Your task to perform on an android device: Clear the shopping cart on walmart. Add apple airpods to the cart on walmart, then select checkout. Image 0: 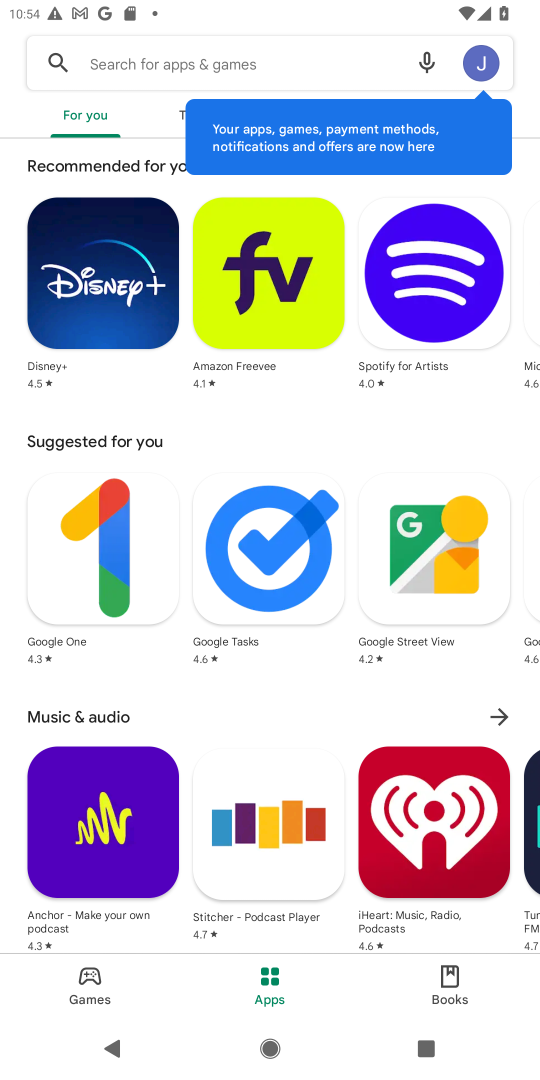
Step 0: press home button
Your task to perform on an android device: Clear the shopping cart on walmart. Add apple airpods to the cart on walmart, then select checkout. Image 1: 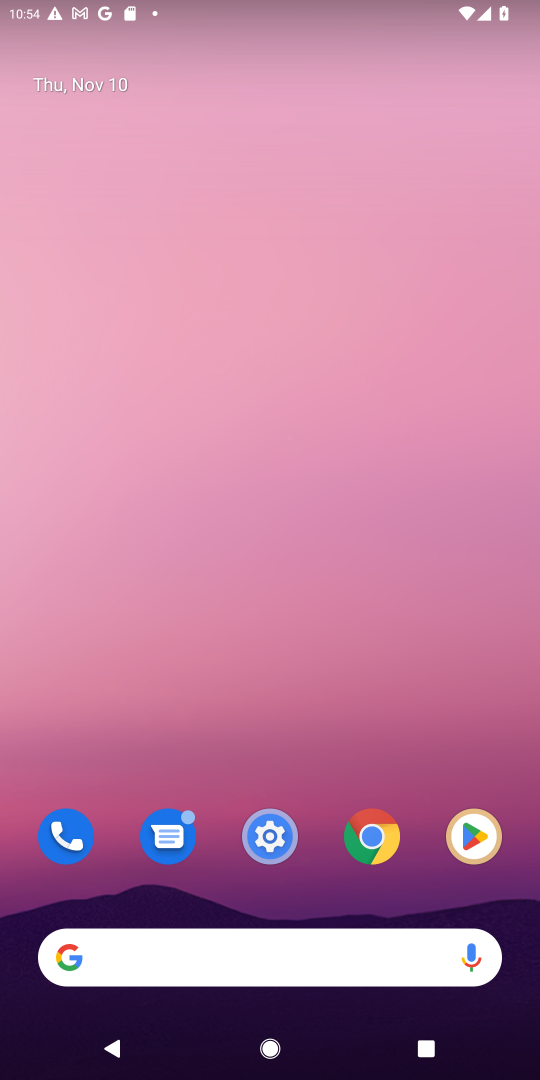
Step 1: click (220, 967)
Your task to perform on an android device: Clear the shopping cart on walmart. Add apple airpods to the cart on walmart, then select checkout. Image 2: 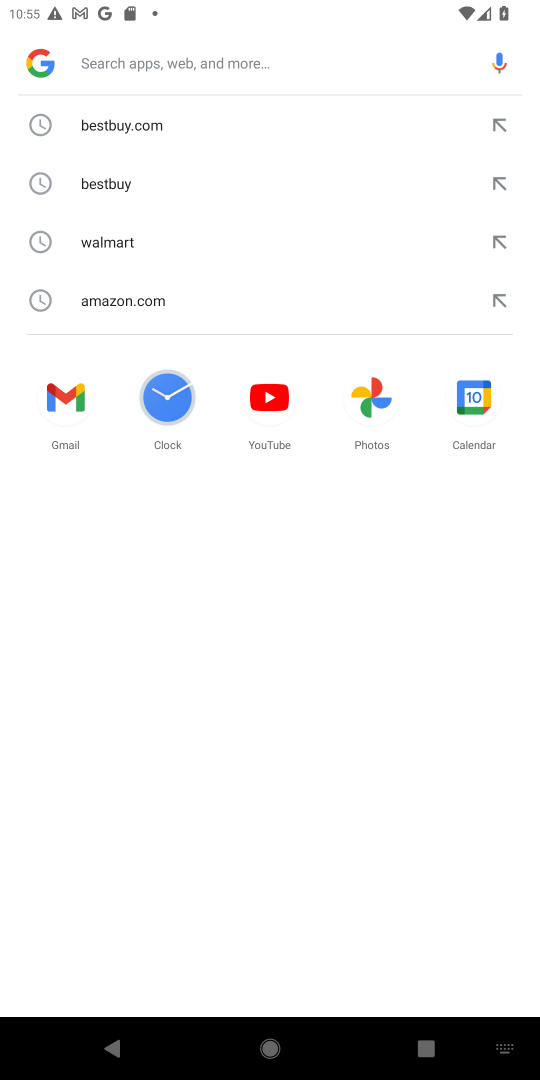
Step 2: press home button
Your task to perform on an android device: Clear the shopping cart on walmart. Add apple airpods to the cart on walmart, then select checkout. Image 3: 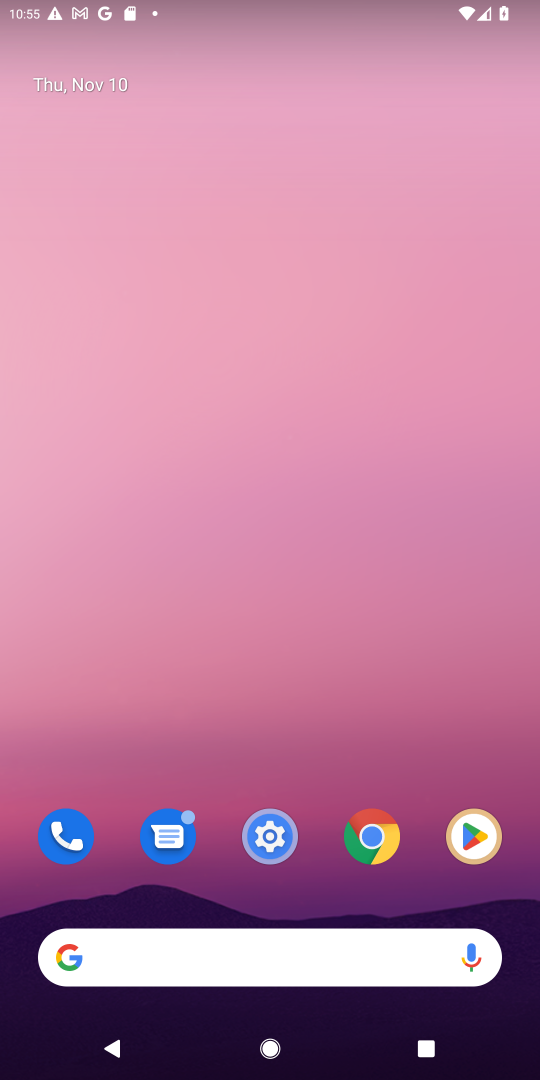
Step 3: click (320, 943)
Your task to perform on an android device: Clear the shopping cart on walmart. Add apple airpods to the cart on walmart, then select checkout. Image 4: 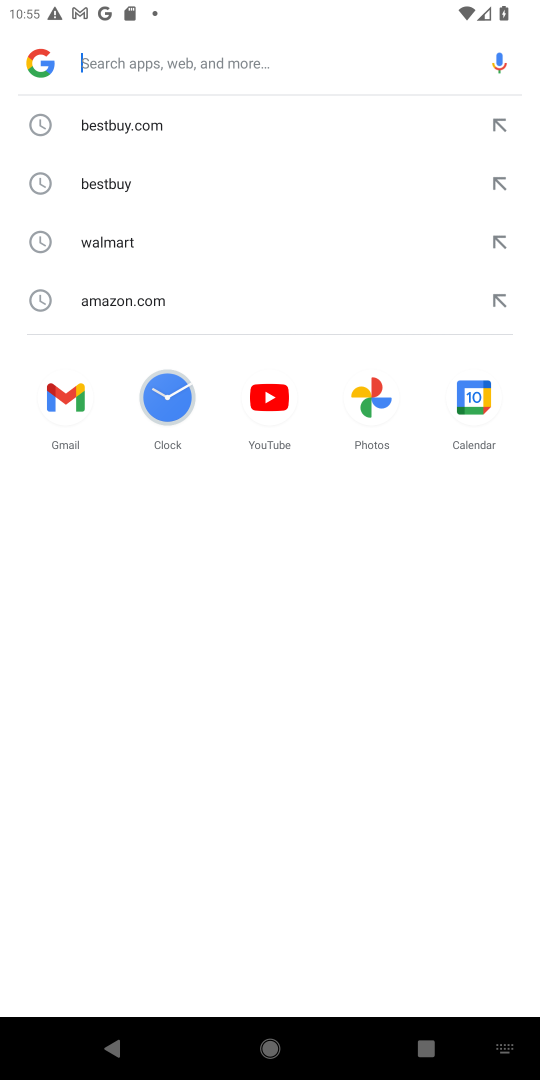
Step 4: click (127, 253)
Your task to perform on an android device: Clear the shopping cart on walmart. Add apple airpods to the cart on walmart, then select checkout. Image 5: 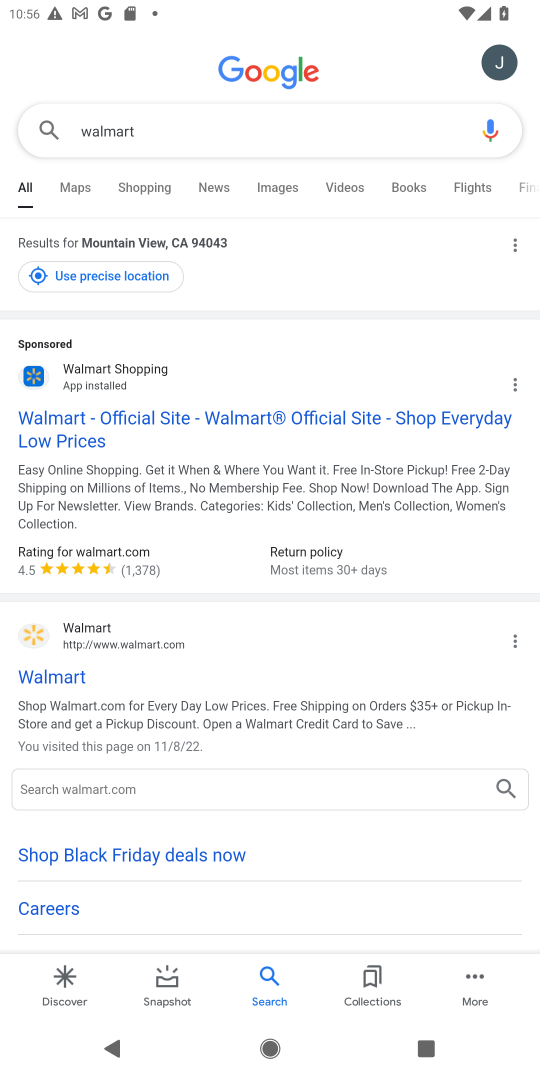
Step 5: click (83, 414)
Your task to perform on an android device: Clear the shopping cart on walmart. Add apple airpods to the cart on walmart, then select checkout. Image 6: 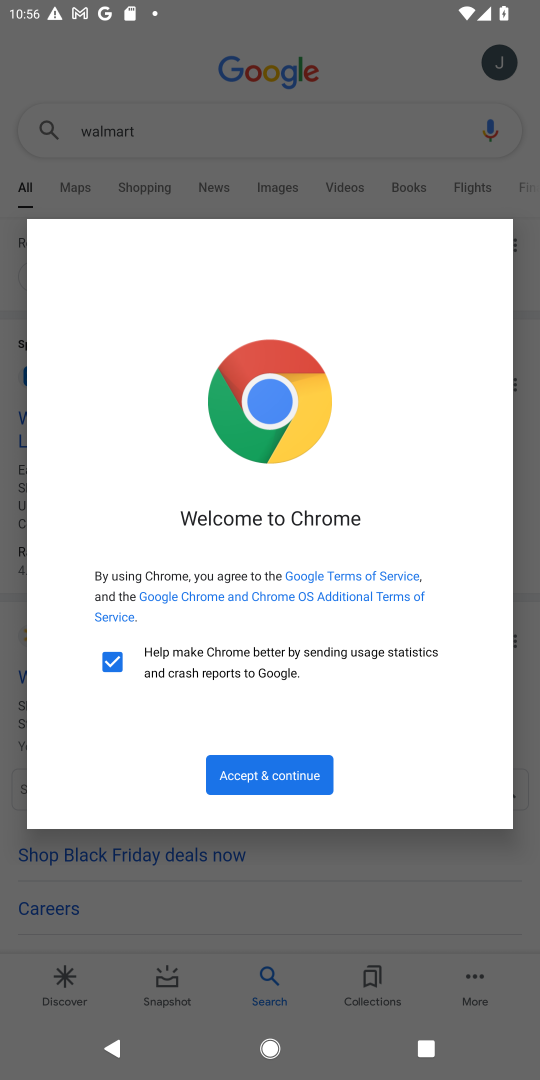
Step 6: click (260, 782)
Your task to perform on an android device: Clear the shopping cart on walmart. Add apple airpods to the cart on walmart, then select checkout. Image 7: 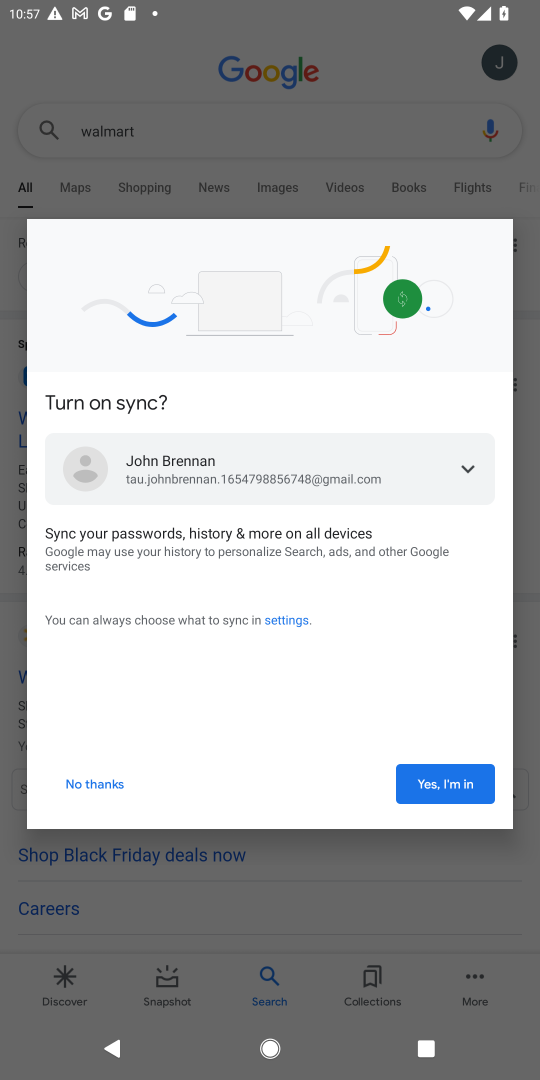
Step 7: click (452, 772)
Your task to perform on an android device: Clear the shopping cart on walmart. Add apple airpods to the cart on walmart, then select checkout. Image 8: 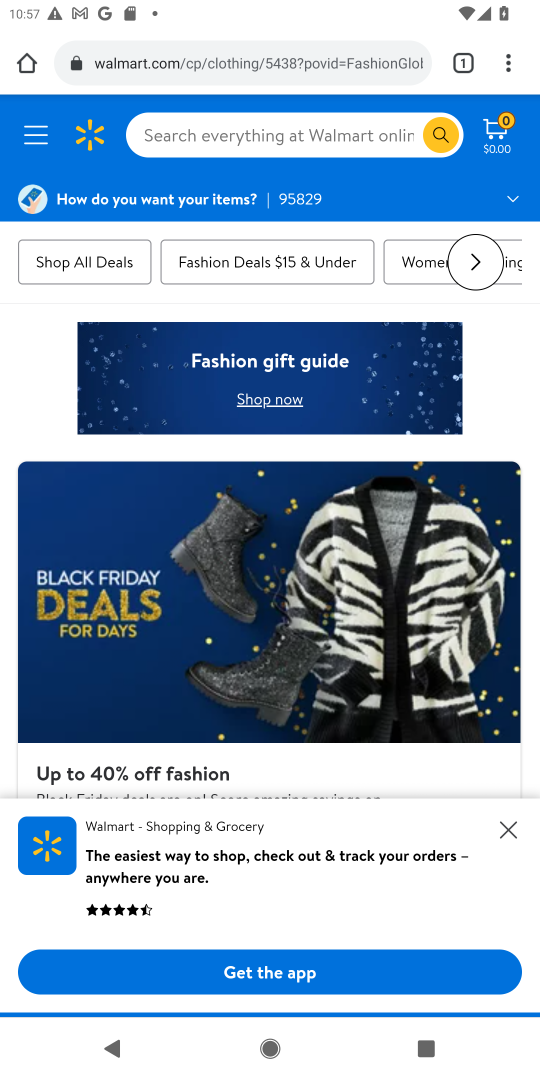
Step 8: click (223, 128)
Your task to perform on an android device: Clear the shopping cart on walmart. Add apple airpods to the cart on walmart, then select checkout. Image 9: 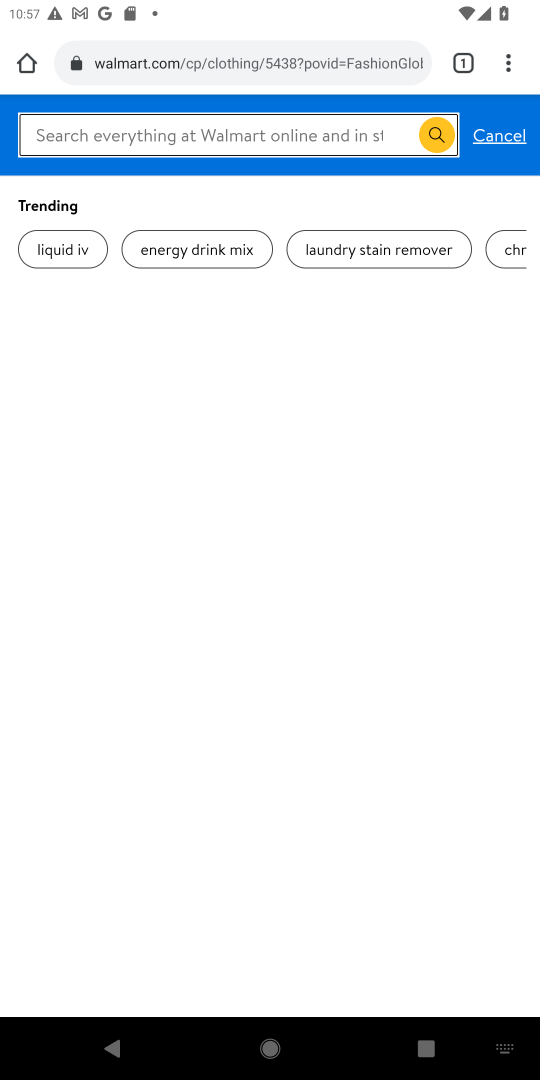
Step 9: type "apple airpods"
Your task to perform on an android device: Clear the shopping cart on walmart. Add apple airpods to the cart on walmart, then select checkout. Image 10: 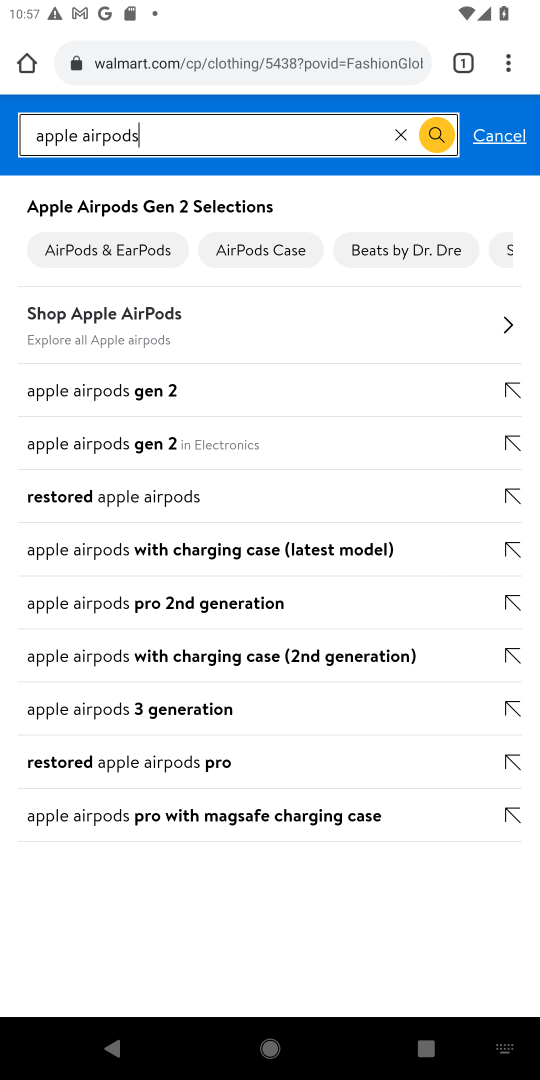
Step 10: click (119, 318)
Your task to perform on an android device: Clear the shopping cart on walmart. Add apple airpods to the cart on walmart, then select checkout. Image 11: 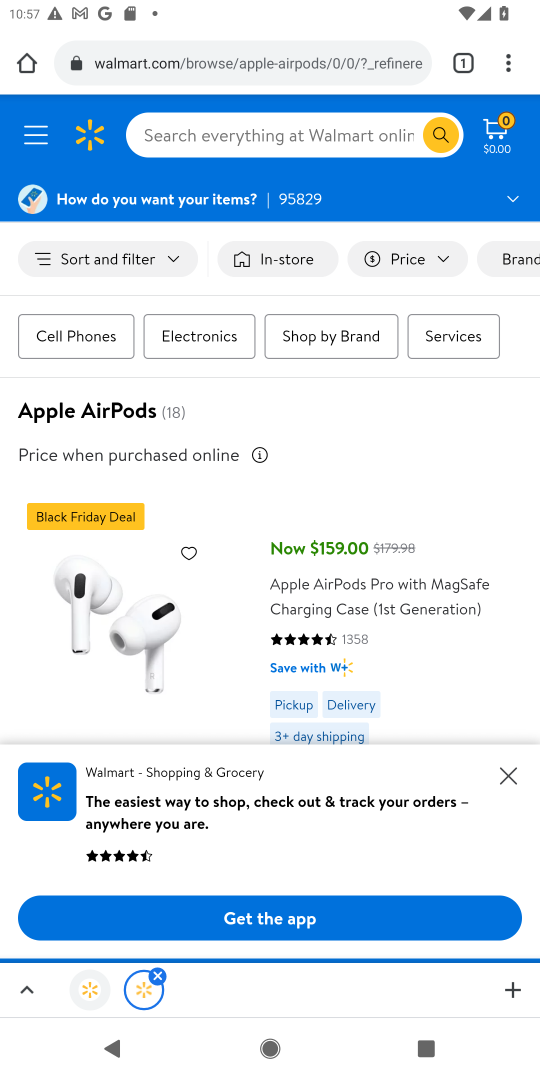
Step 11: click (512, 779)
Your task to perform on an android device: Clear the shopping cart on walmart. Add apple airpods to the cart on walmart, then select checkout. Image 12: 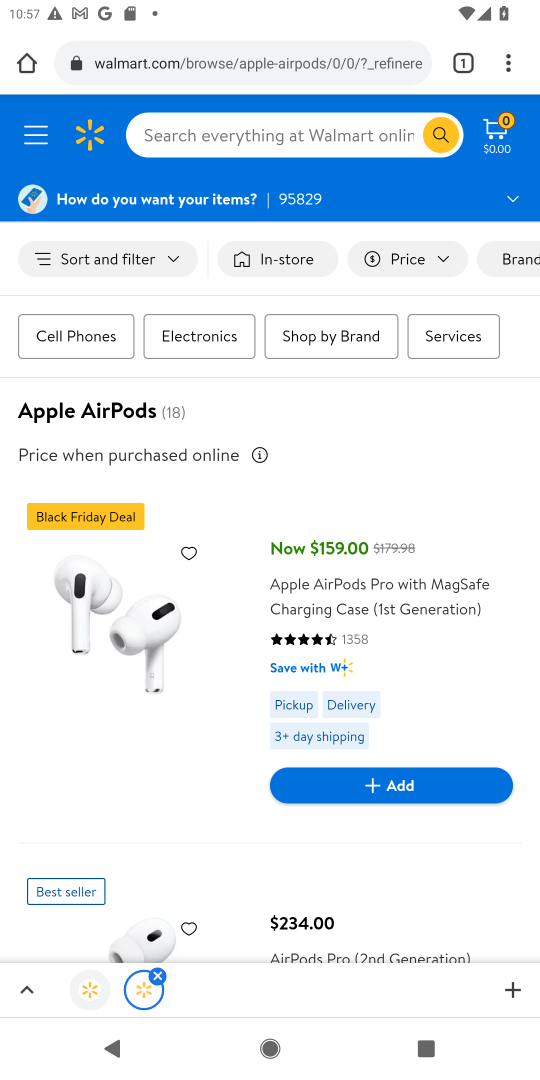
Step 12: click (377, 781)
Your task to perform on an android device: Clear the shopping cart on walmart. Add apple airpods to the cart on walmart, then select checkout. Image 13: 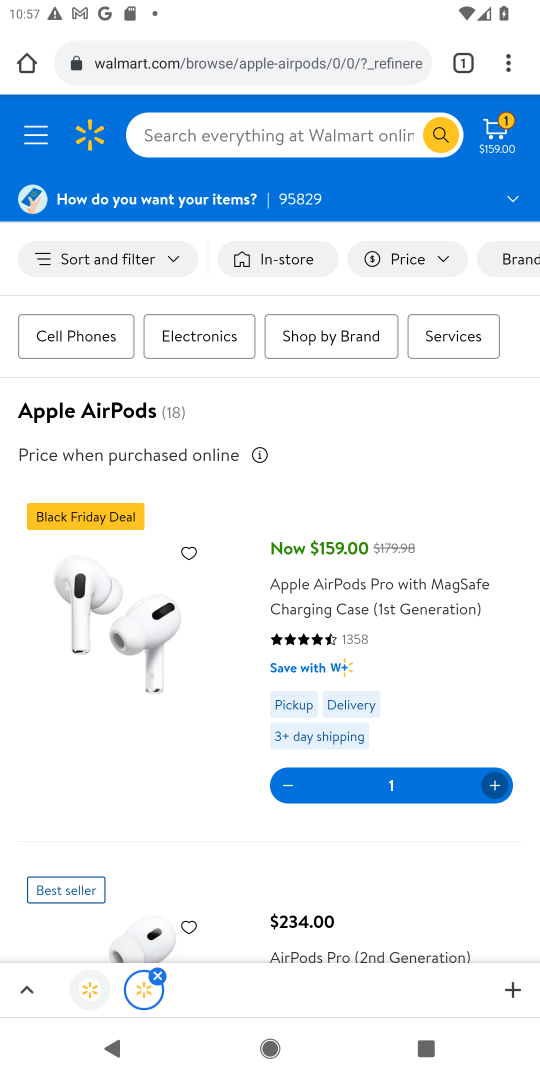
Step 13: click (502, 148)
Your task to perform on an android device: Clear the shopping cart on walmart. Add apple airpods to the cart on walmart, then select checkout. Image 14: 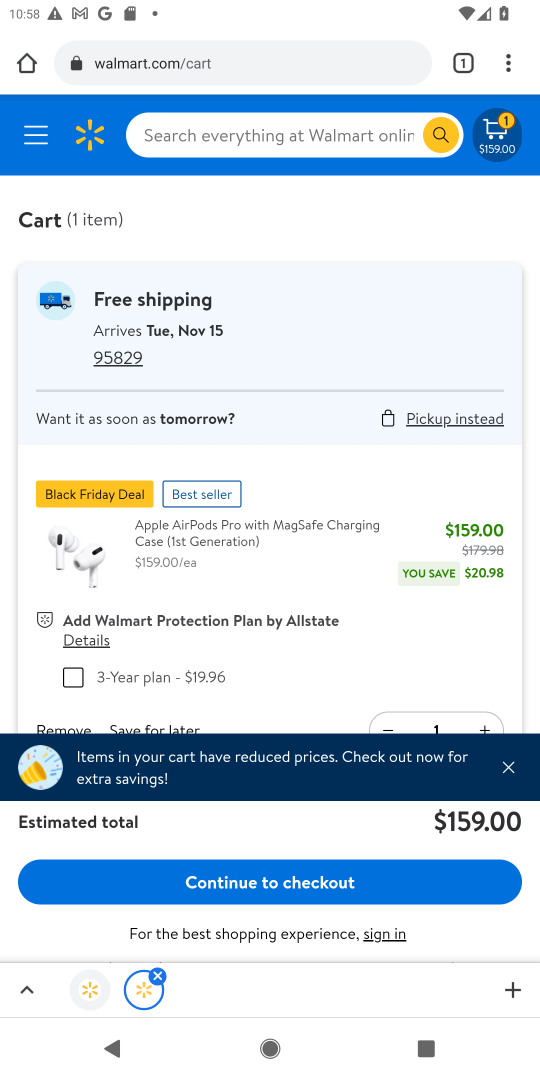
Step 14: click (283, 882)
Your task to perform on an android device: Clear the shopping cart on walmart. Add apple airpods to the cart on walmart, then select checkout. Image 15: 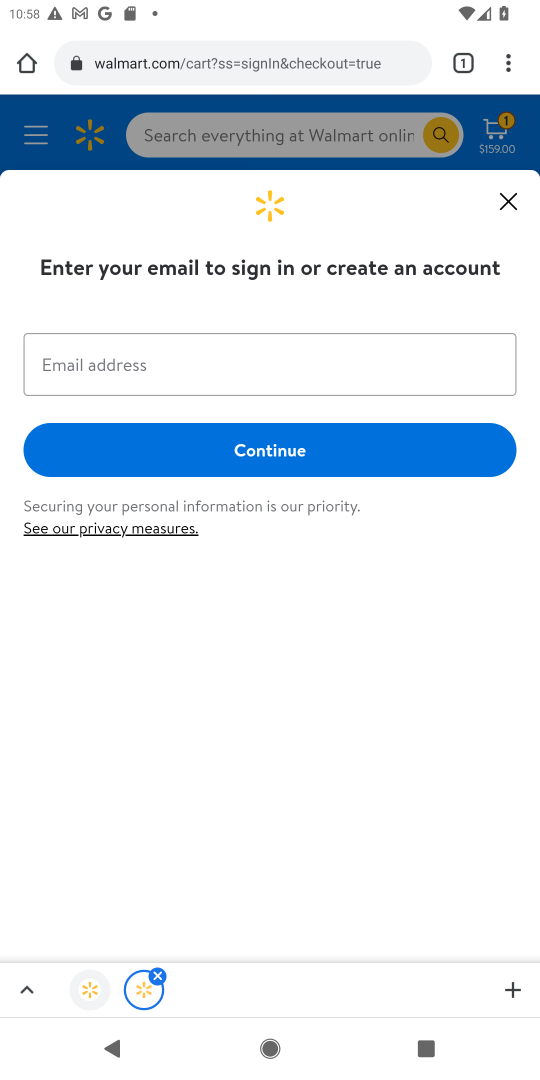
Step 15: task complete